Your task to perform on an android device: turn vacation reply on in the gmail app Image 0: 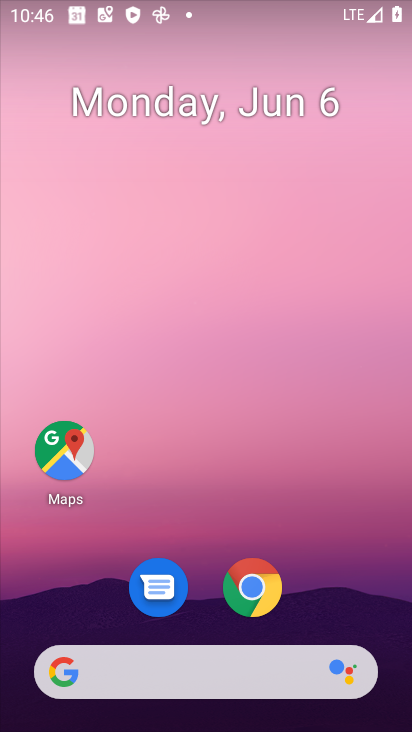
Step 0: drag from (206, 625) to (274, 19)
Your task to perform on an android device: turn vacation reply on in the gmail app Image 1: 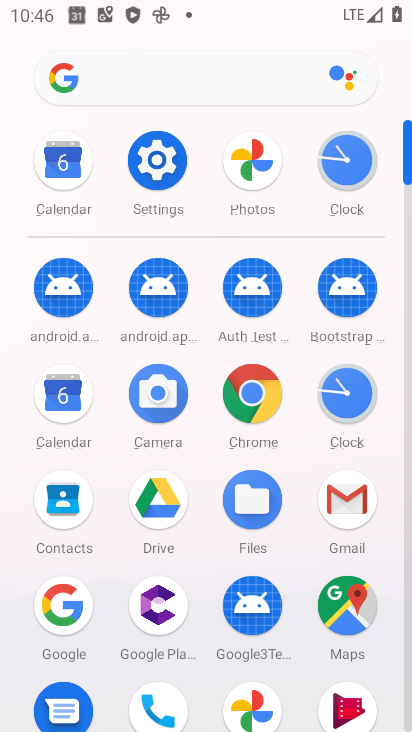
Step 1: click (352, 485)
Your task to perform on an android device: turn vacation reply on in the gmail app Image 2: 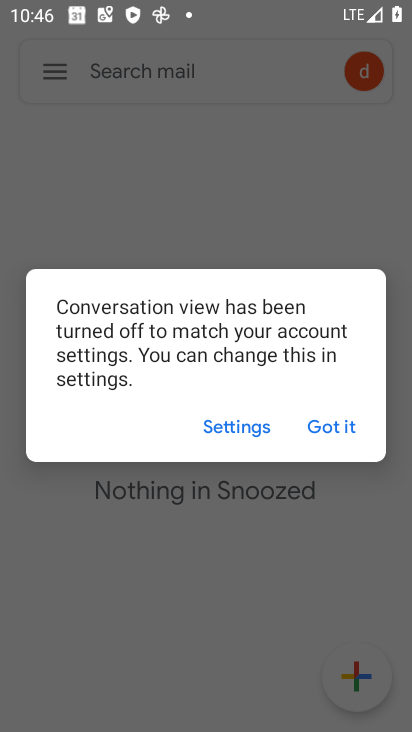
Step 2: click (322, 418)
Your task to perform on an android device: turn vacation reply on in the gmail app Image 3: 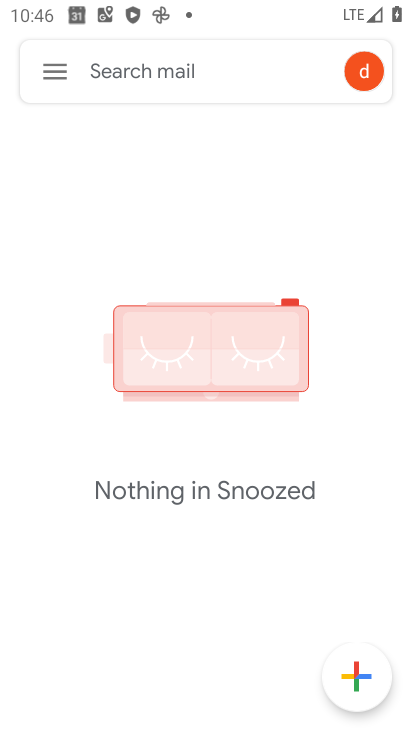
Step 3: click (56, 74)
Your task to perform on an android device: turn vacation reply on in the gmail app Image 4: 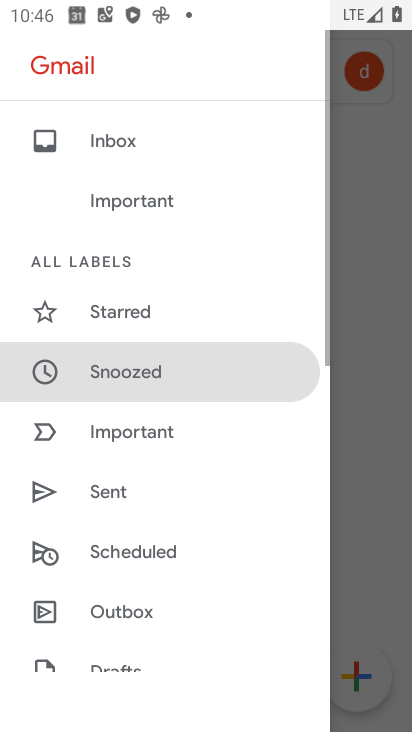
Step 4: drag from (133, 641) to (153, 37)
Your task to perform on an android device: turn vacation reply on in the gmail app Image 5: 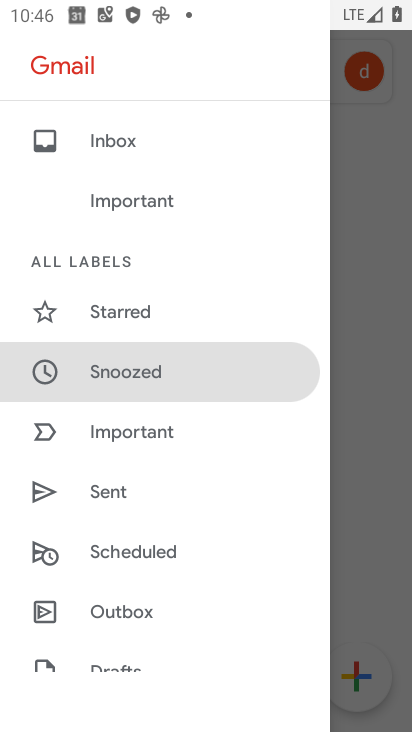
Step 5: drag from (171, 589) to (234, 72)
Your task to perform on an android device: turn vacation reply on in the gmail app Image 6: 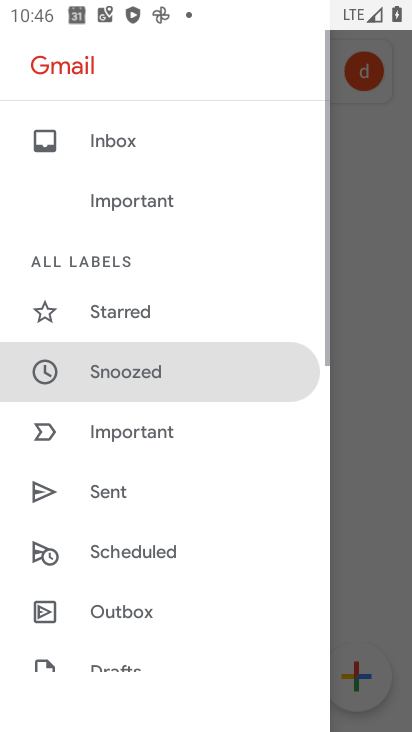
Step 6: drag from (246, 582) to (269, 3)
Your task to perform on an android device: turn vacation reply on in the gmail app Image 7: 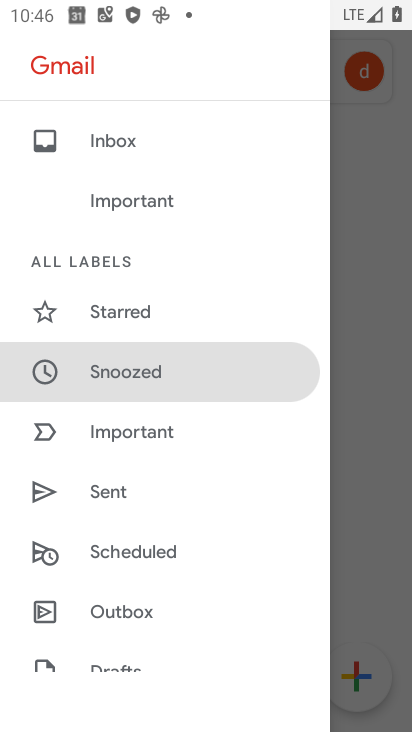
Step 7: drag from (169, 506) to (309, 34)
Your task to perform on an android device: turn vacation reply on in the gmail app Image 8: 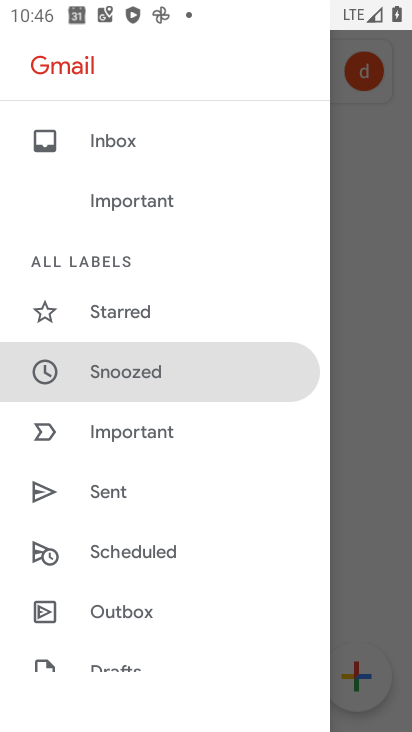
Step 8: drag from (168, 470) to (218, 34)
Your task to perform on an android device: turn vacation reply on in the gmail app Image 9: 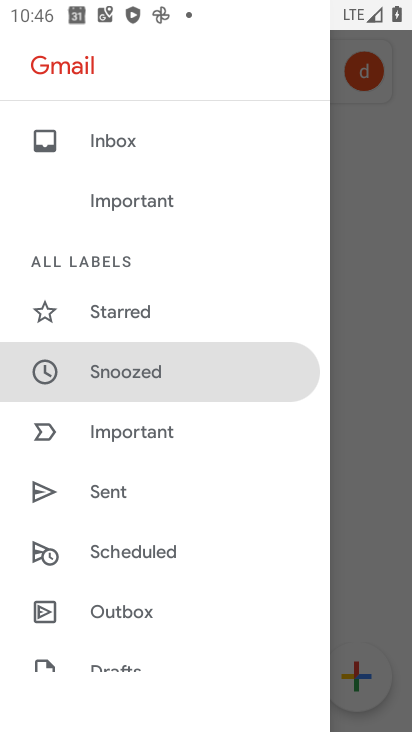
Step 9: drag from (152, 621) to (161, 70)
Your task to perform on an android device: turn vacation reply on in the gmail app Image 10: 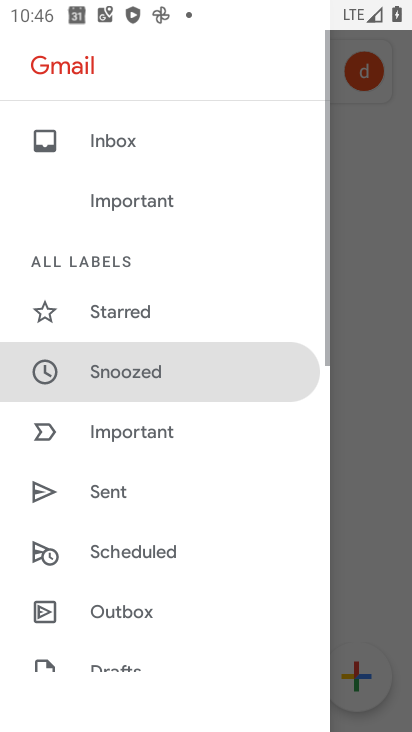
Step 10: drag from (112, 651) to (137, 2)
Your task to perform on an android device: turn vacation reply on in the gmail app Image 11: 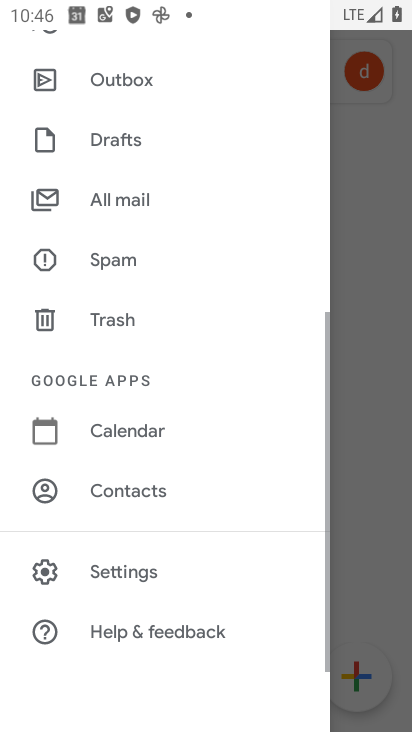
Step 11: click (164, 567)
Your task to perform on an android device: turn vacation reply on in the gmail app Image 12: 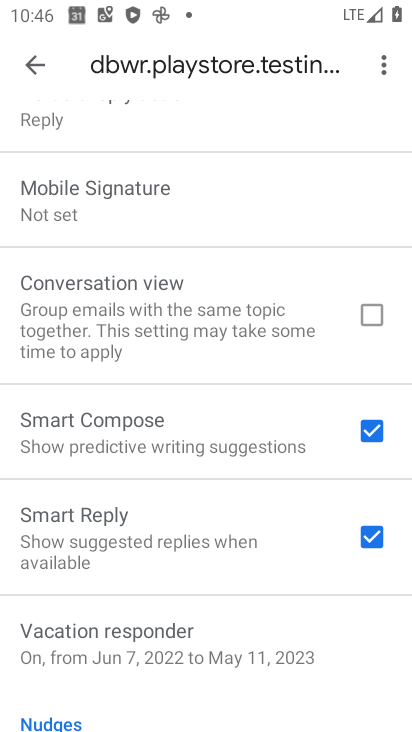
Step 12: click (261, 653)
Your task to perform on an android device: turn vacation reply on in the gmail app Image 13: 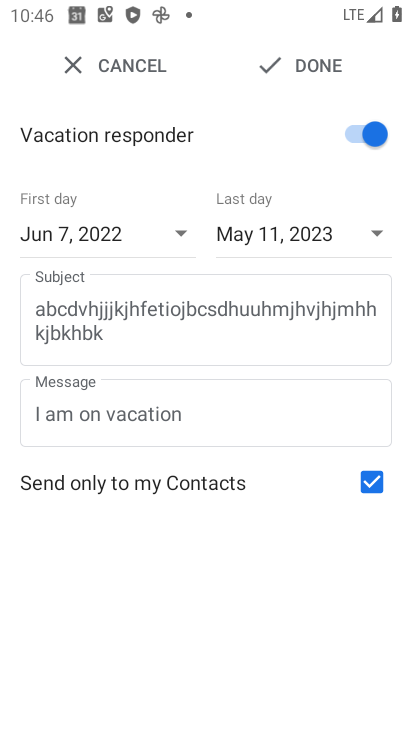
Step 13: click (308, 65)
Your task to perform on an android device: turn vacation reply on in the gmail app Image 14: 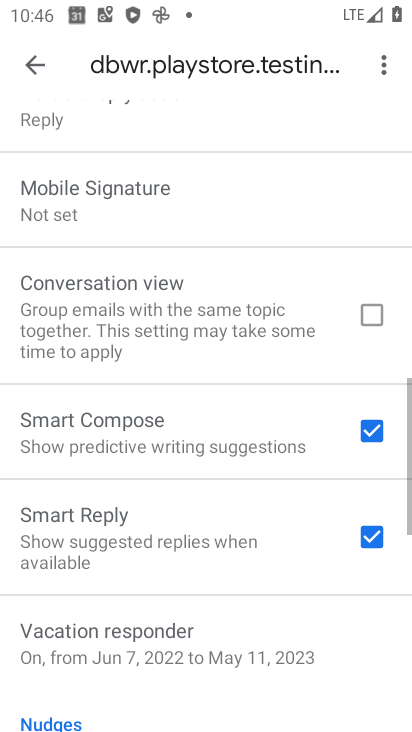
Step 14: task complete